Your task to perform on an android device: Open display settings Image 0: 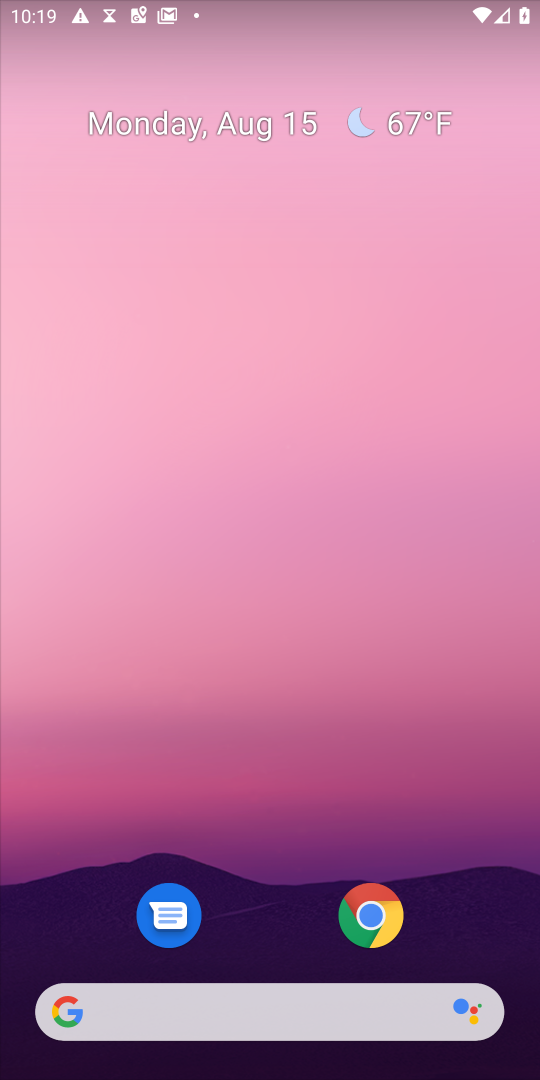
Step 0: click (254, 5)
Your task to perform on an android device: Open display settings Image 1: 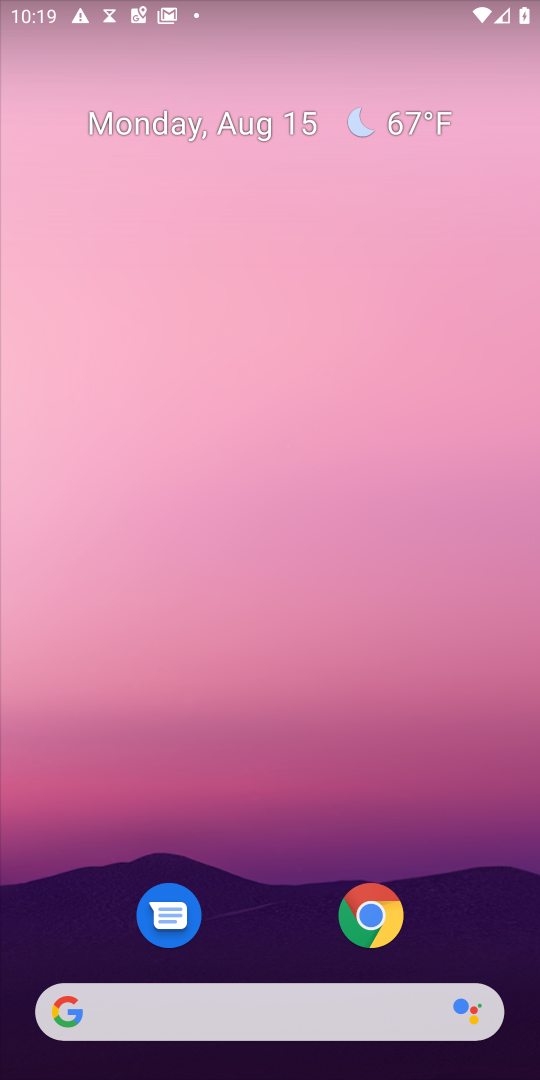
Step 1: drag from (280, 850) to (284, 85)
Your task to perform on an android device: Open display settings Image 2: 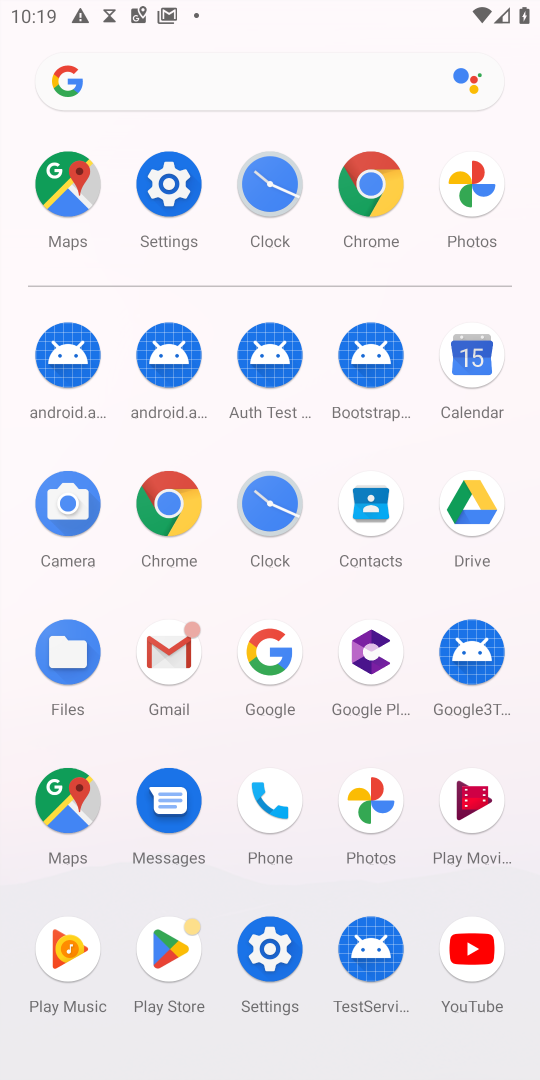
Step 2: click (163, 170)
Your task to perform on an android device: Open display settings Image 3: 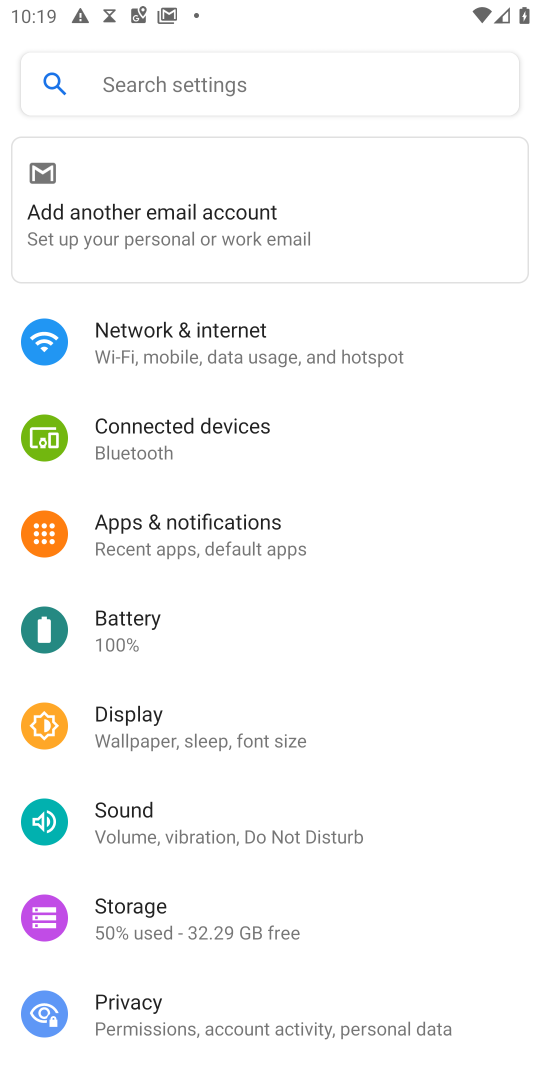
Step 3: click (176, 735)
Your task to perform on an android device: Open display settings Image 4: 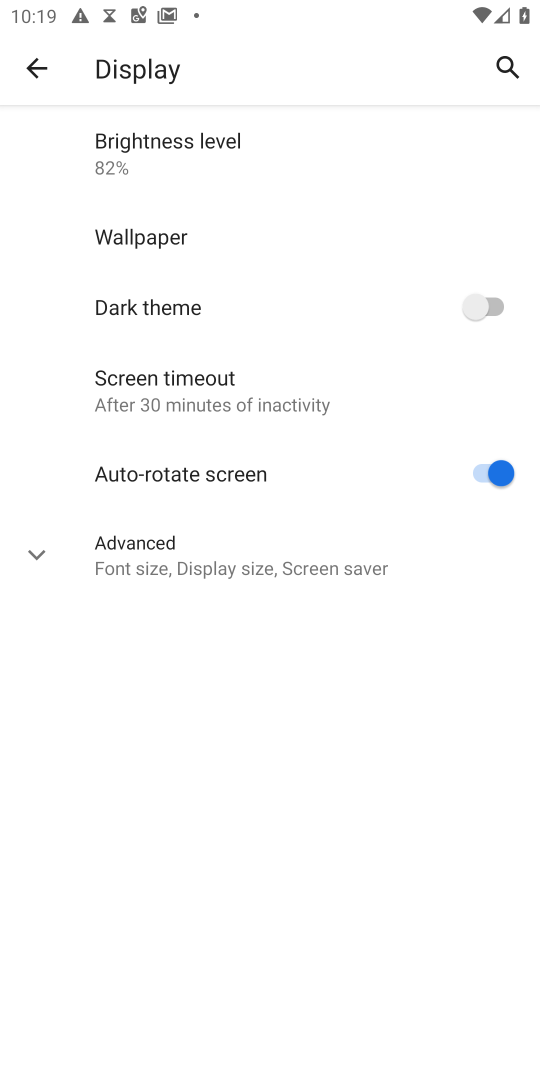
Step 4: task complete